Your task to perform on an android device: turn on the 12-hour format for clock Image 0: 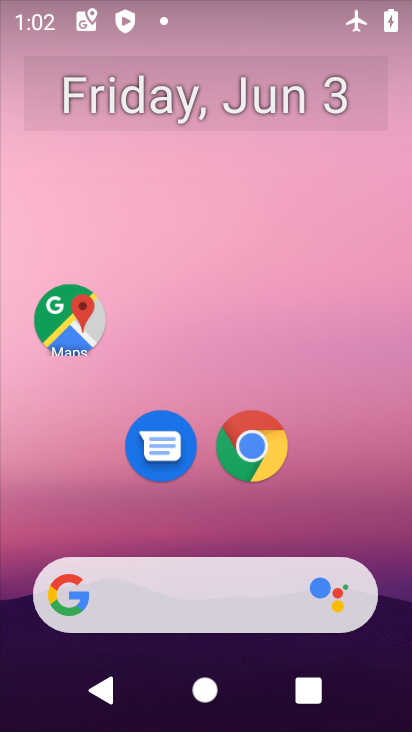
Step 0: drag from (265, 673) to (258, 114)
Your task to perform on an android device: turn on the 12-hour format for clock Image 1: 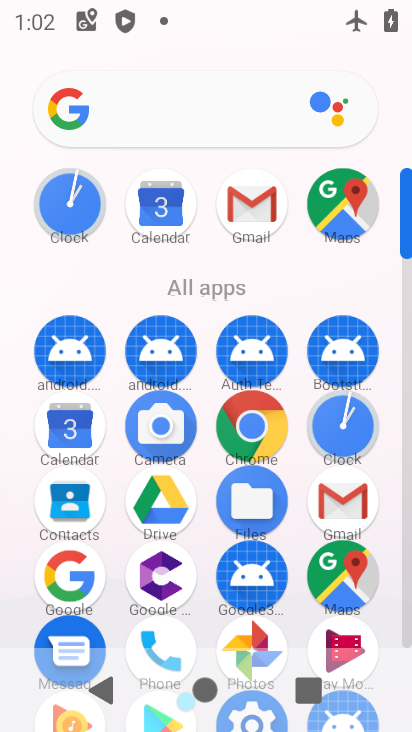
Step 1: click (354, 429)
Your task to perform on an android device: turn on the 12-hour format for clock Image 2: 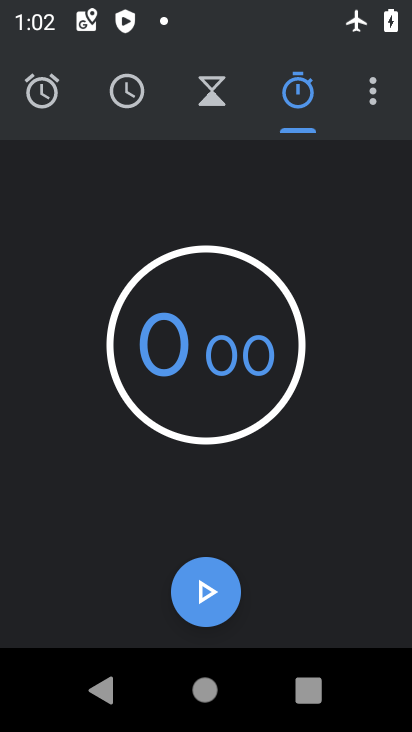
Step 2: click (367, 100)
Your task to perform on an android device: turn on the 12-hour format for clock Image 3: 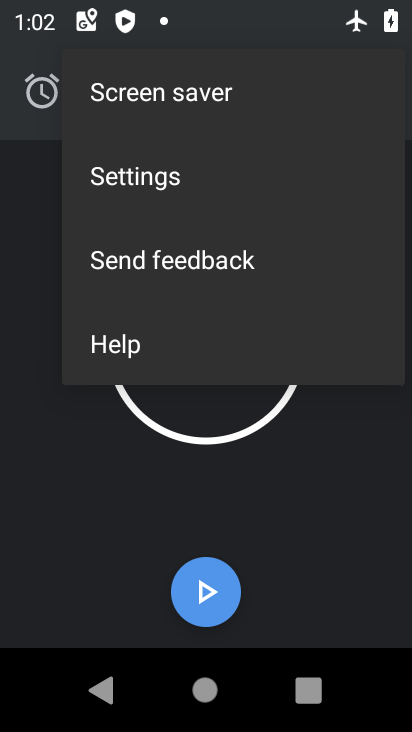
Step 3: click (168, 179)
Your task to perform on an android device: turn on the 12-hour format for clock Image 4: 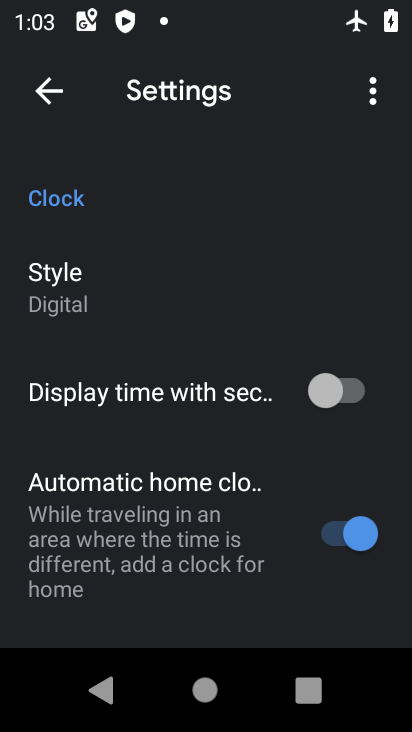
Step 4: drag from (196, 472) to (238, 63)
Your task to perform on an android device: turn on the 12-hour format for clock Image 5: 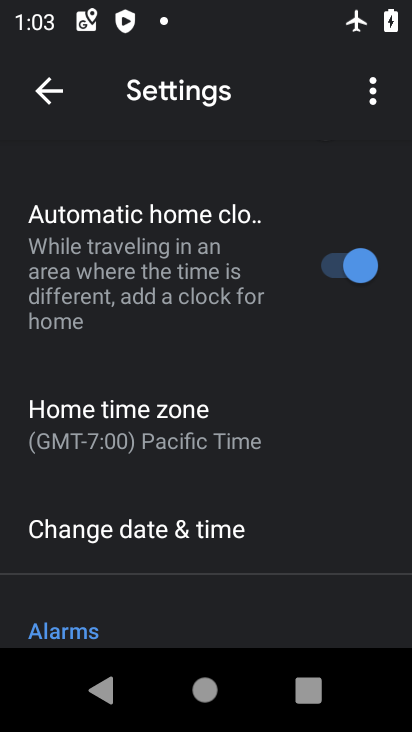
Step 5: click (261, 517)
Your task to perform on an android device: turn on the 12-hour format for clock Image 6: 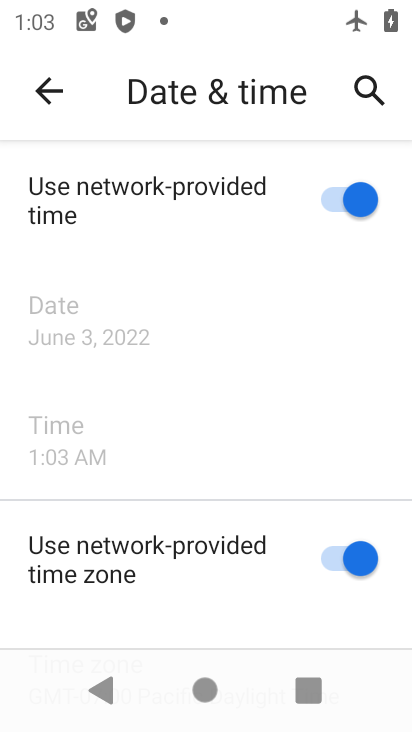
Step 6: task complete